Your task to perform on an android device: Show me productivity apps on the Play Store Image 0: 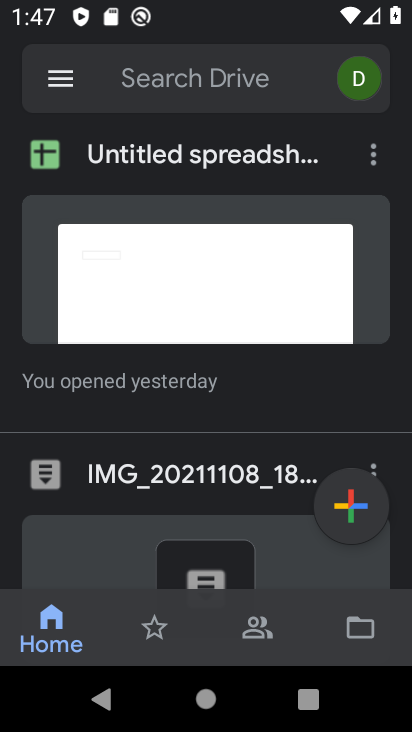
Step 0: press home button
Your task to perform on an android device: Show me productivity apps on the Play Store Image 1: 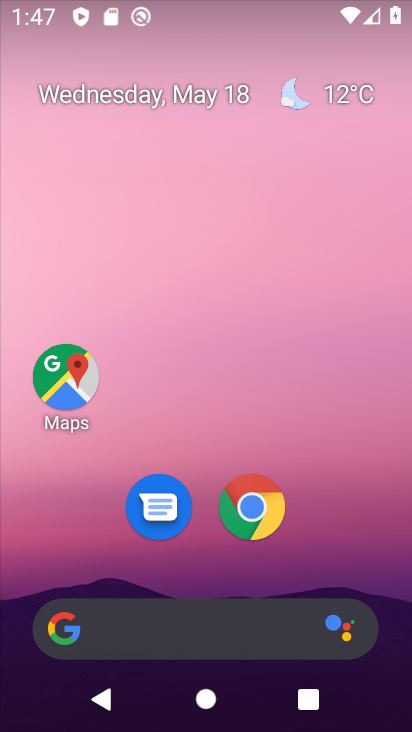
Step 1: drag from (318, 563) to (288, 254)
Your task to perform on an android device: Show me productivity apps on the Play Store Image 2: 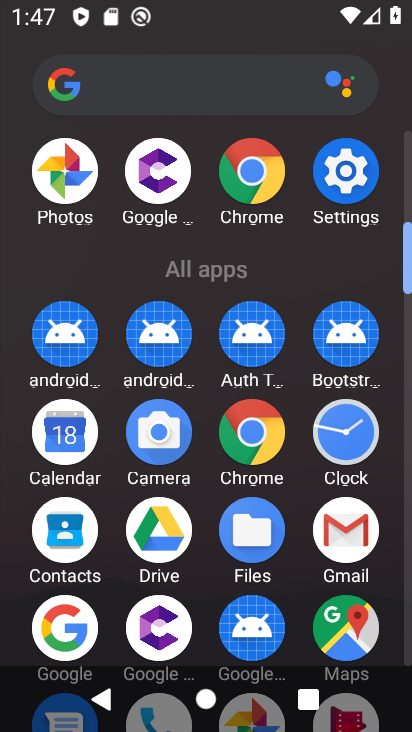
Step 2: drag from (407, 226) to (406, 184)
Your task to perform on an android device: Show me productivity apps on the Play Store Image 3: 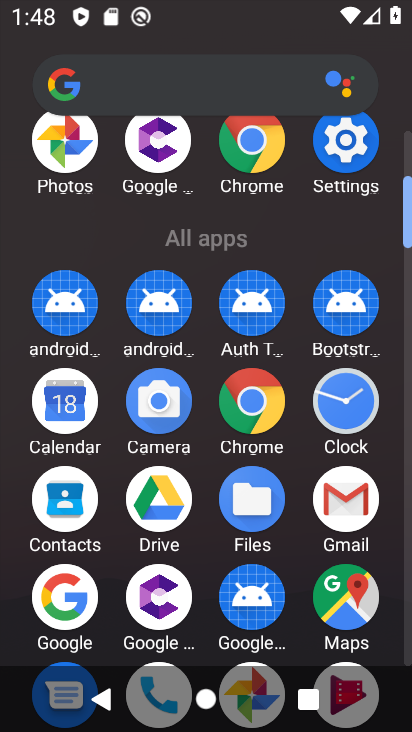
Step 3: drag from (409, 160) to (402, 113)
Your task to perform on an android device: Show me productivity apps on the Play Store Image 4: 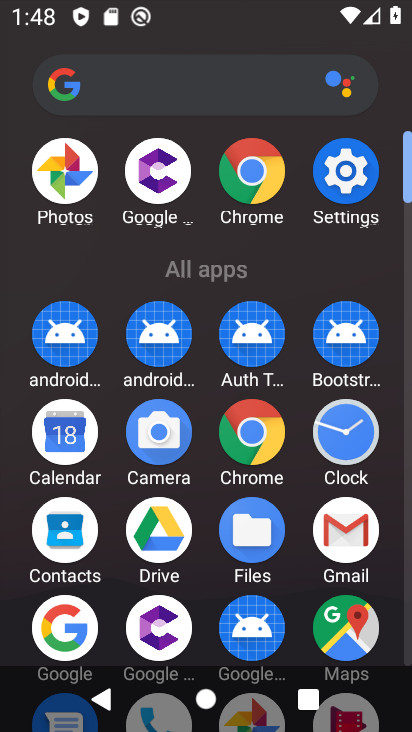
Step 4: drag from (408, 141) to (410, 85)
Your task to perform on an android device: Show me productivity apps on the Play Store Image 5: 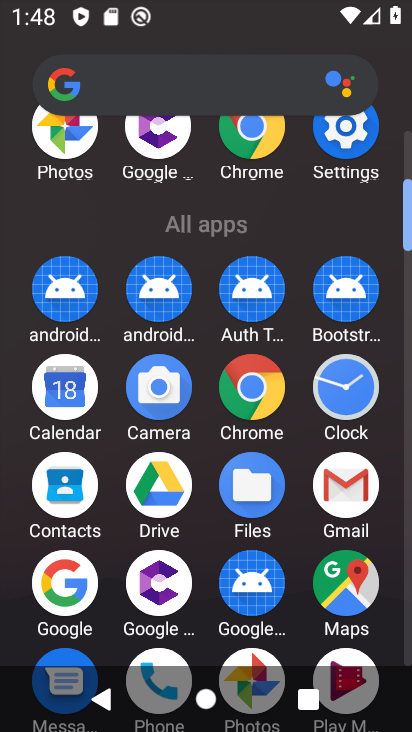
Step 5: drag from (404, 188) to (410, 85)
Your task to perform on an android device: Show me productivity apps on the Play Store Image 6: 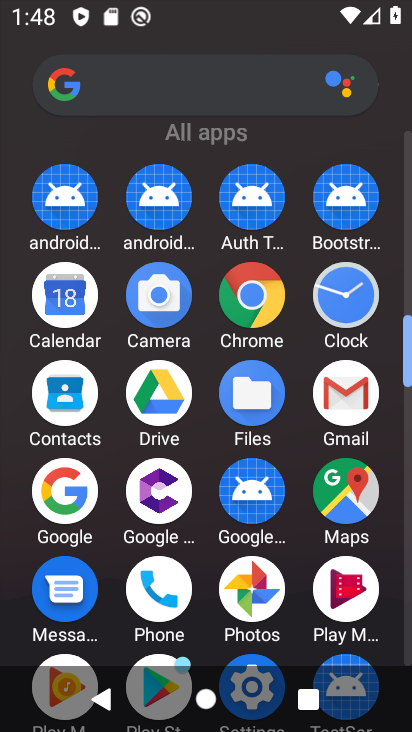
Step 6: click (150, 660)
Your task to perform on an android device: Show me productivity apps on the Play Store Image 7: 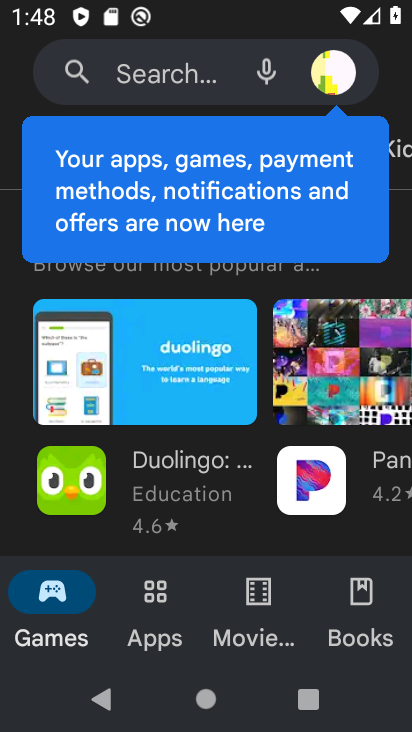
Step 7: press home button
Your task to perform on an android device: Show me productivity apps on the Play Store Image 8: 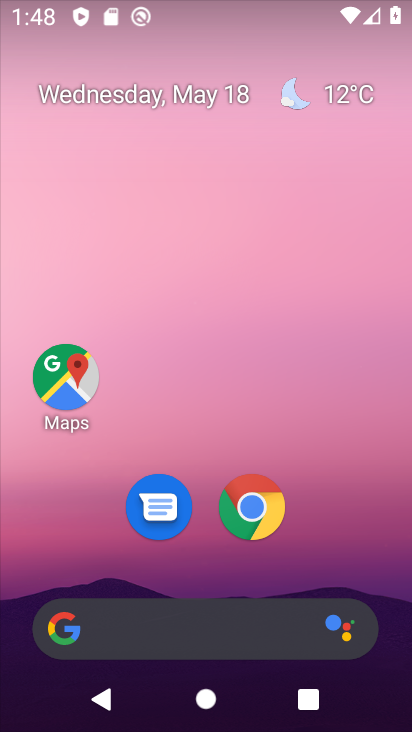
Step 8: drag from (401, 638) to (311, 233)
Your task to perform on an android device: Show me productivity apps on the Play Store Image 9: 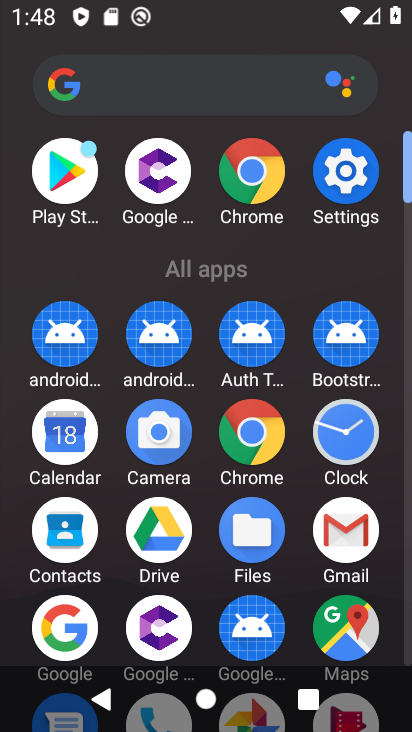
Step 9: drag from (407, 136) to (395, 89)
Your task to perform on an android device: Show me productivity apps on the Play Store Image 10: 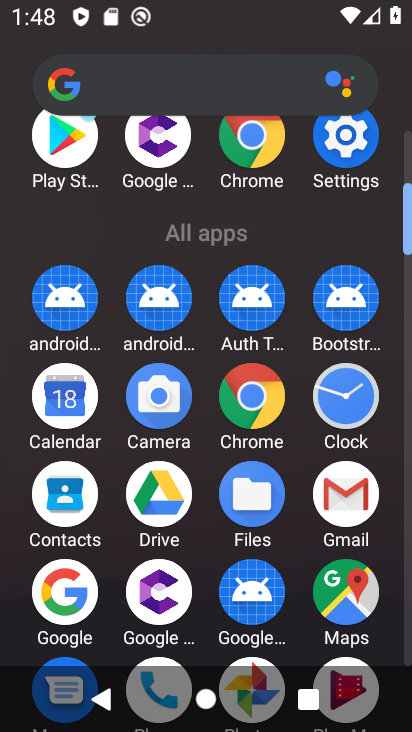
Step 10: drag from (407, 192) to (389, 94)
Your task to perform on an android device: Show me productivity apps on the Play Store Image 11: 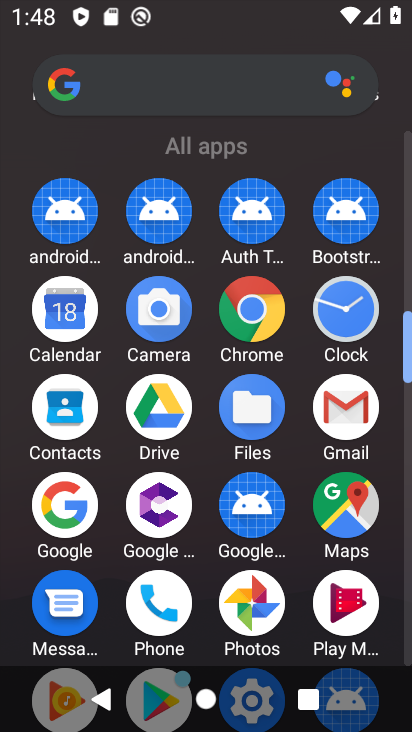
Step 11: drag from (409, 318) to (404, 270)
Your task to perform on an android device: Show me productivity apps on the Play Store Image 12: 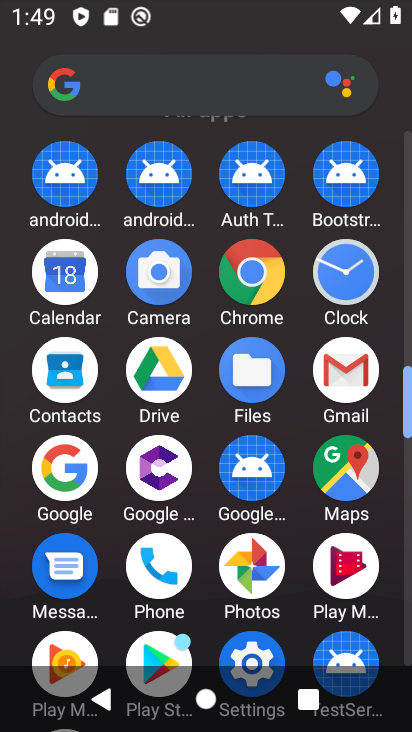
Step 12: click (165, 643)
Your task to perform on an android device: Show me productivity apps on the Play Store Image 13: 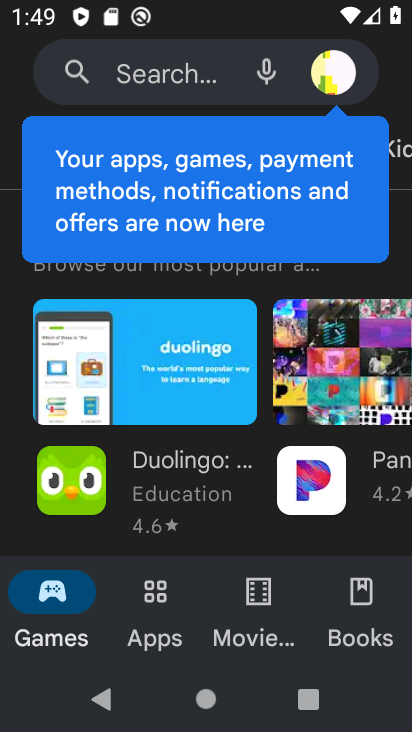
Step 13: click (218, 77)
Your task to perform on an android device: Show me productivity apps on the Play Store Image 14: 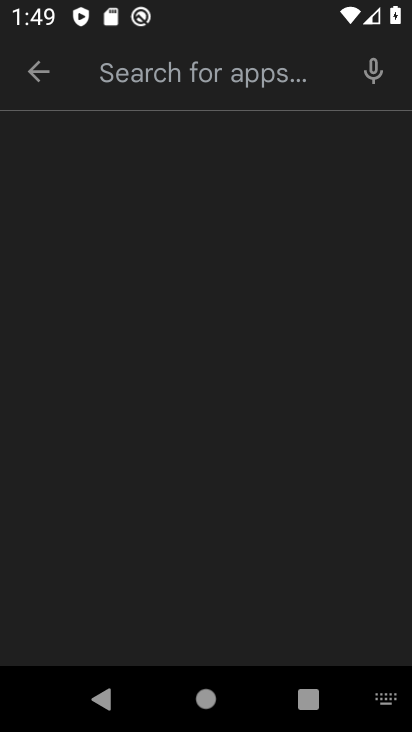
Step 14: type "productivity apps"
Your task to perform on an android device: Show me productivity apps on the Play Store Image 15: 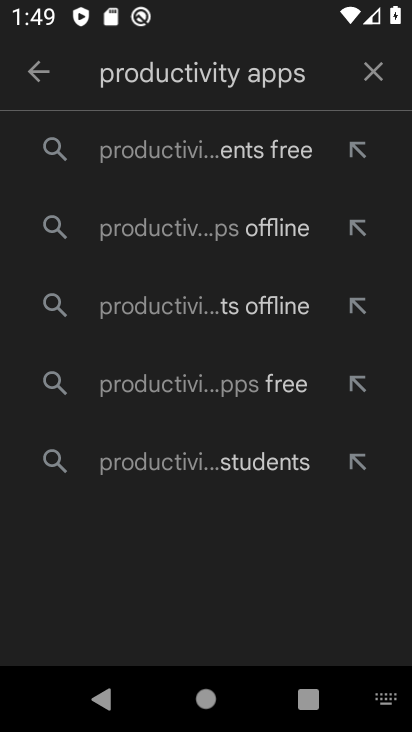
Step 15: click (148, 392)
Your task to perform on an android device: Show me productivity apps on the Play Store Image 16: 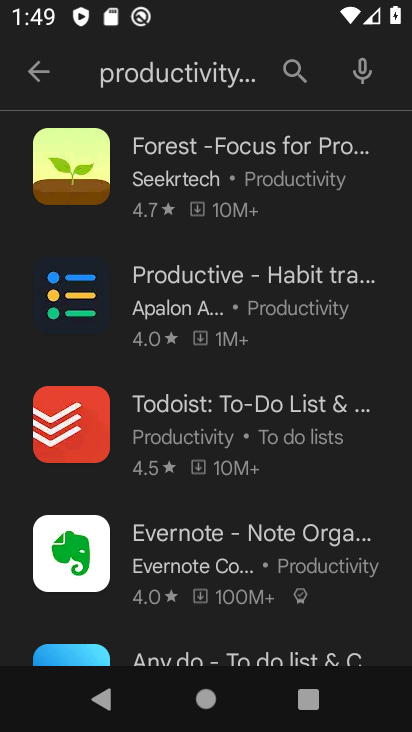
Step 16: task complete